Your task to perform on an android device: set the stopwatch Image 0: 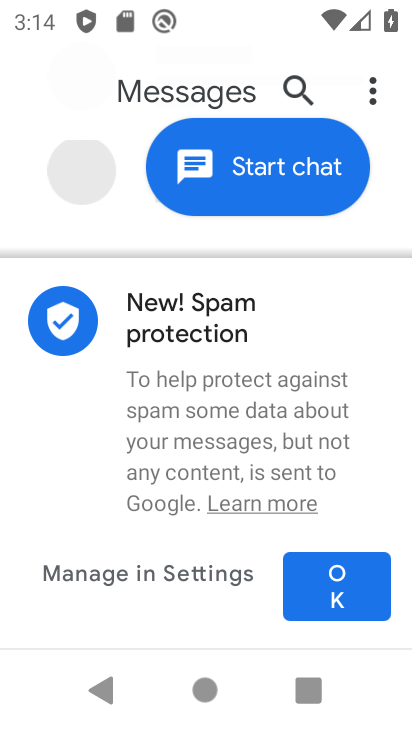
Step 0: press home button
Your task to perform on an android device: set the stopwatch Image 1: 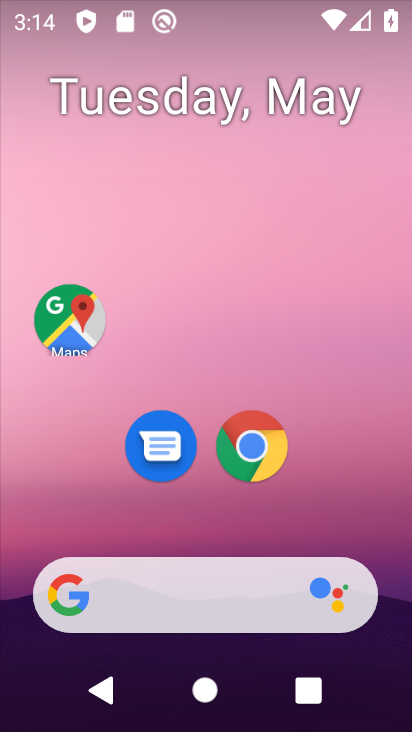
Step 1: drag from (218, 717) to (211, 270)
Your task to perform on an android device: set the stopwatch Image 2: 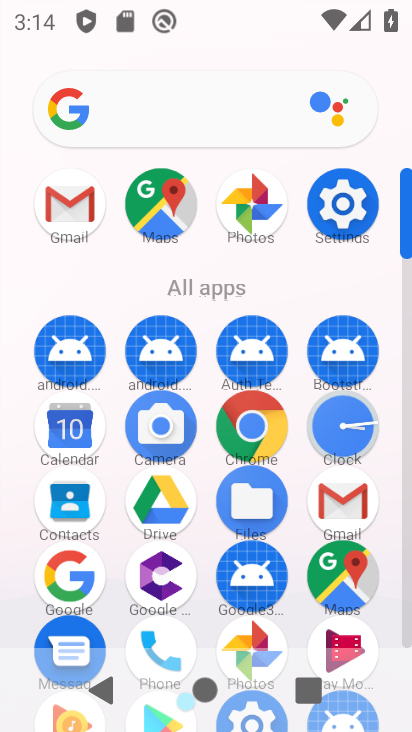
Step 2: click (347, 422)
Your task to perform on an android device: set the stopwatch Image 3: 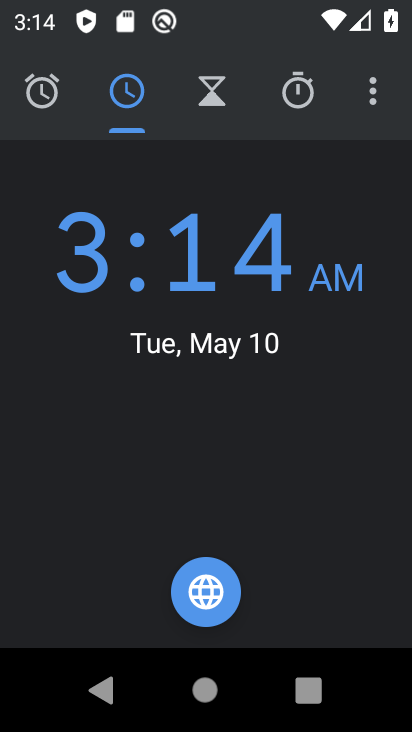
Step 3: click (291, 92)
Your task to perform on an android device: set the stopwatch Image 4: 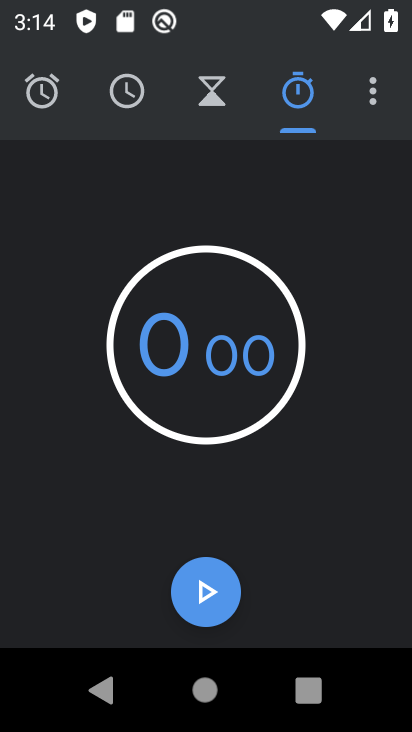
Step 4: click (236, 341)
Your task to perform on an android device: set the stopwatch Image 5: 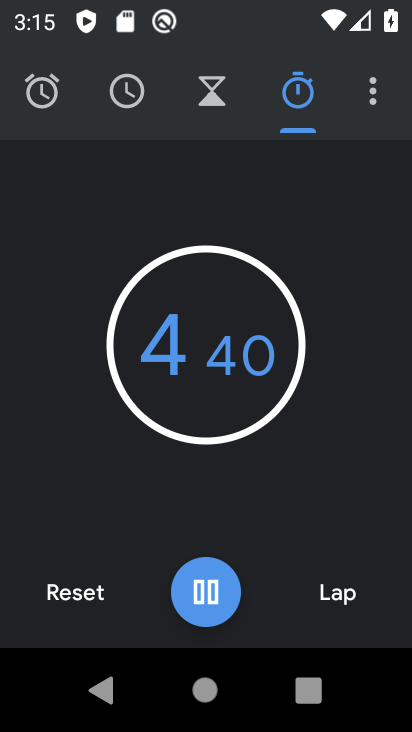
Step 5: type "876"
Your task to perform on an android device: set the stopwatch Image 6: 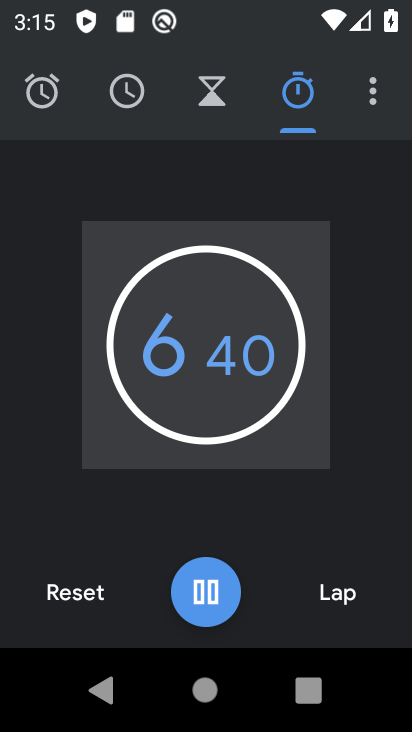
Step 6: task complete